Your task to perform on an android device: Open Chrome and go to the settings page Image 0: 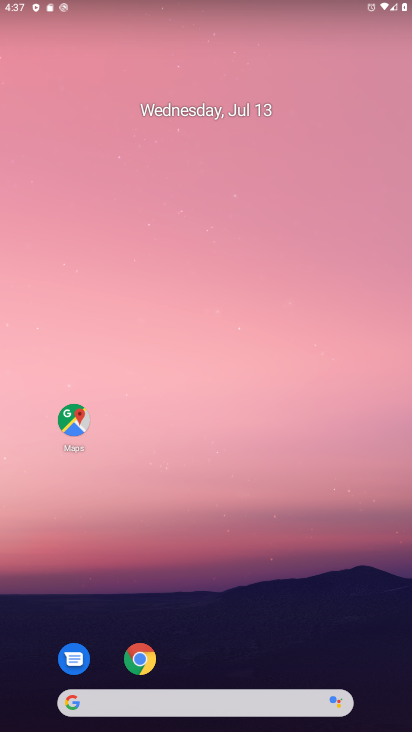
Step 0: drag from (250, 267) to (249, 82)
Your task to perform on an android device: Open Chrome and go to the settings page Image 1: 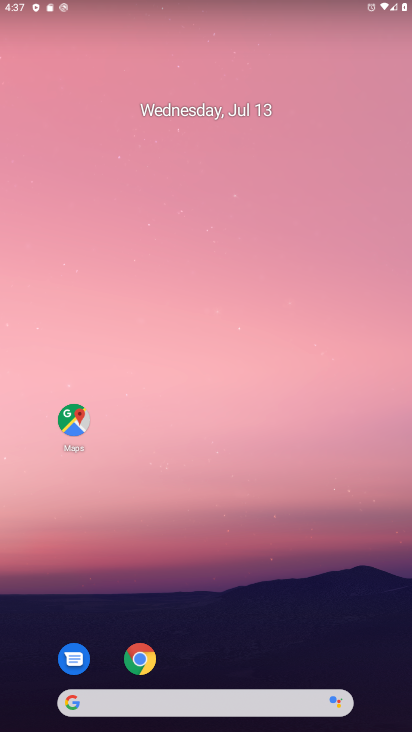
Step 1: drag from (298, 618) to (272, 64)
Your task to perform on an android device: Open Chrome and go to the settings page Image 2: 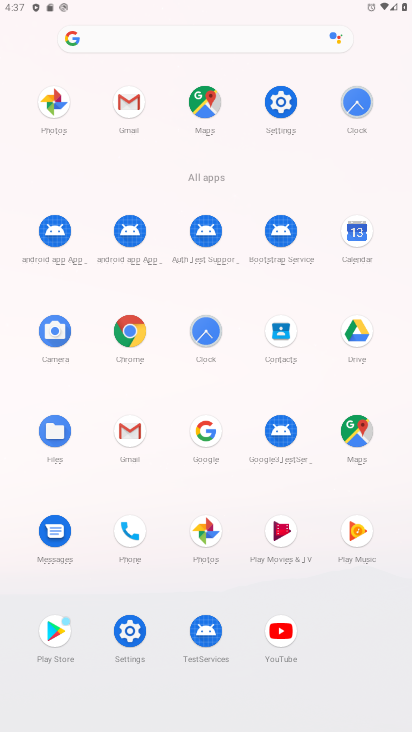
Step 2: click (131, 327)
Your task to perform on an android device: Open Chrome and go to the settings page Image 3: 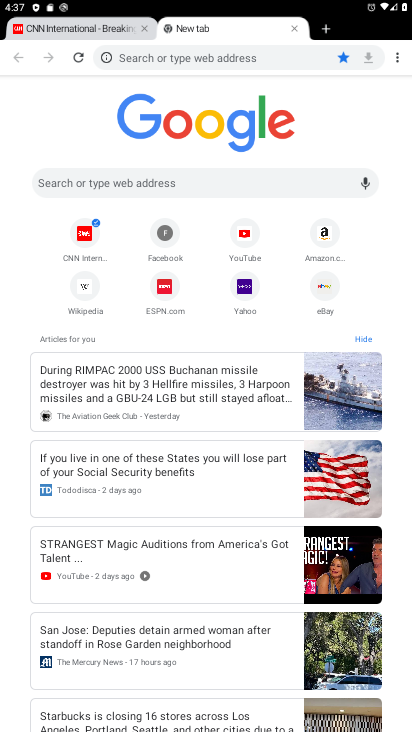
Step 3: task complete